Your task to perform on an android device: star an email in the gmail app Image 0: 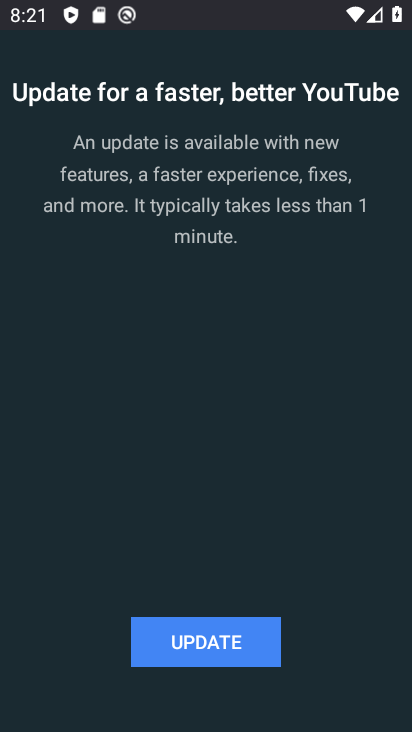
Step 0: press home button
Your task to perform on an android device: star an email in the gmail app Image 1: 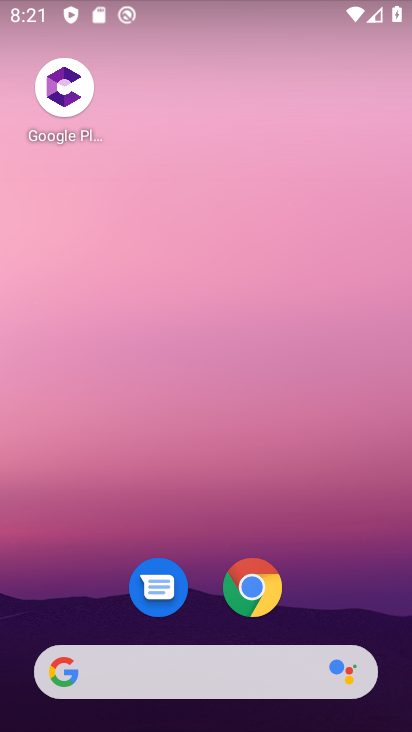
Step 1: drag from (113, 731) to (140, 50)
Your task to perform on an android device: star an email in the gmail app Image 2: 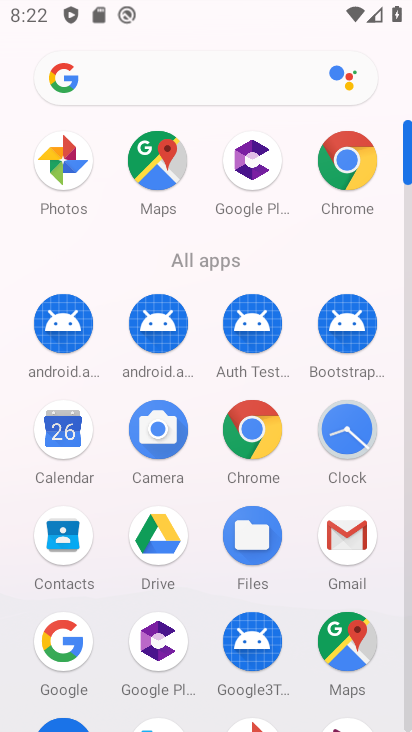
Step 2: click (348, 540)
Your task to perform on an android device: star an email in the gmail app Image 3: 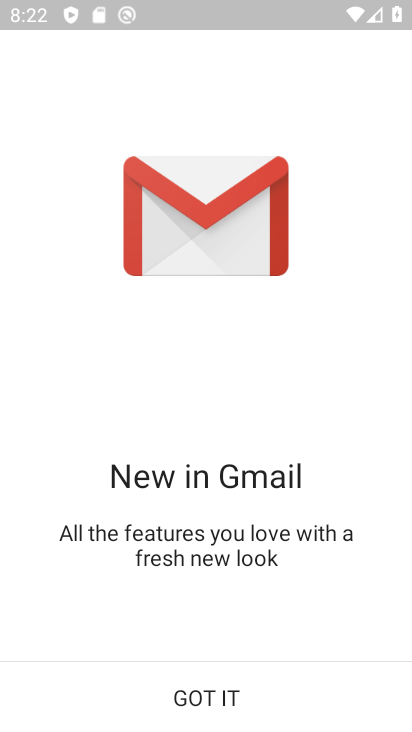
Step 3: click (235, 678)
Your task to perform on an android device: star an email in the gmail app Image 4: 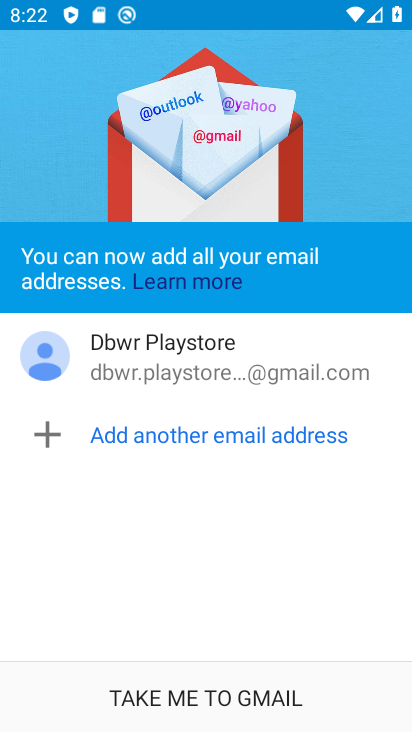
Step 4: click (199, 354)
Your task to perform on an android device: star an email in the gmail app Image 5: 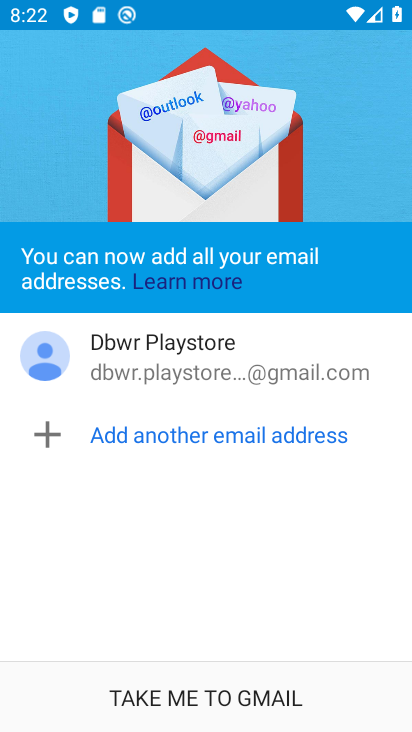
Step 5: click (215, 696)
Your task to perform on an android device: star an email in the gmail app Image 6: 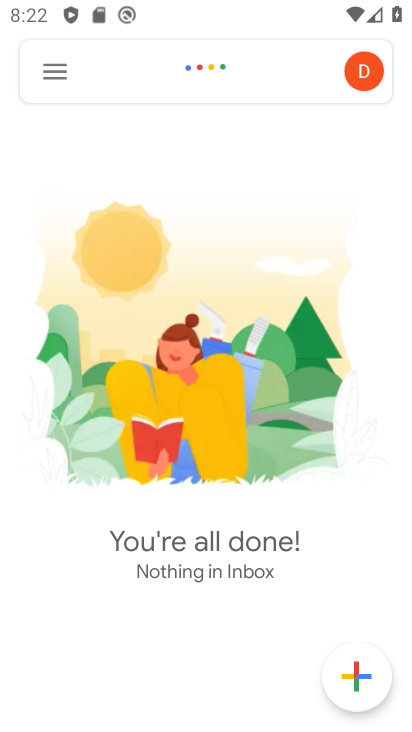
Step 6: click (50, 65)
Your task to perform on an android device: star an email in the gmail app Image 7: 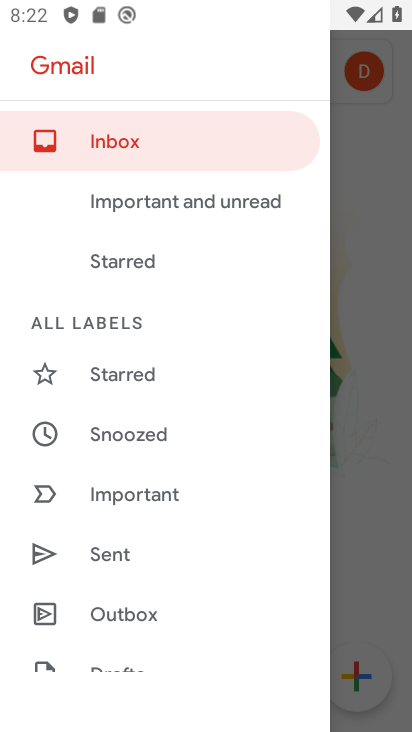
Step 7: drag from (207, 597) to (232, 242)
Your task to perform on an android device: star an email in the gmail app Image 8: 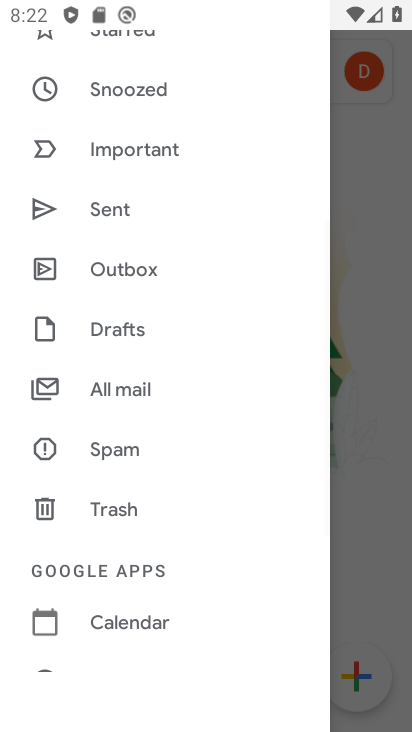
Step 8: click (150, 396)
Your task to perform on an android device: star an email in the gmail app Image 9: 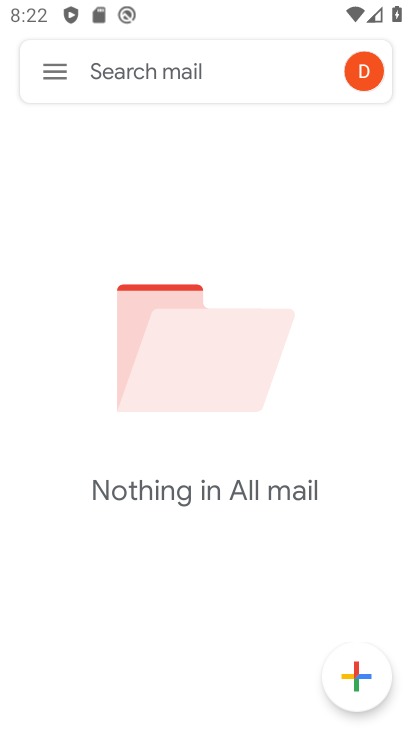
Step 9: click (61, 77)
Your task to perform on an android device: star an email in the gmail app Image 10: 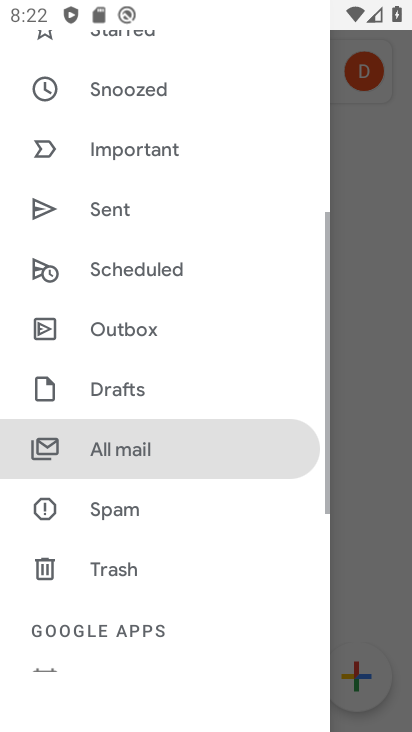
Step 10: drag from (171, 111) to (190, 546)
Your task to perform on an android device: star an email in the gmail app Image 11: 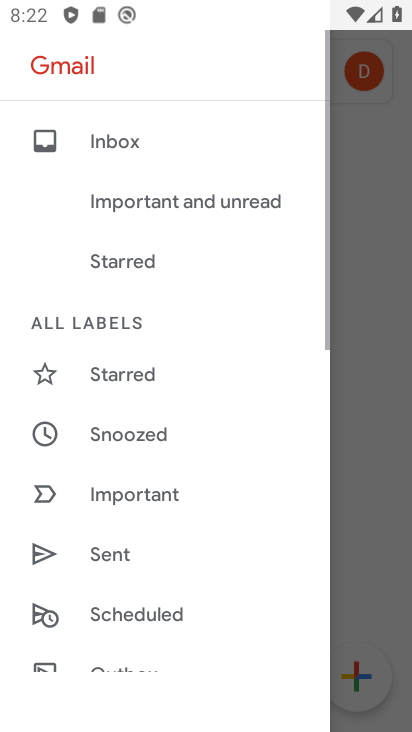
Step 11: click (103, 155)
Your task to perform on an android device: star an email in the gmail app Image 12: 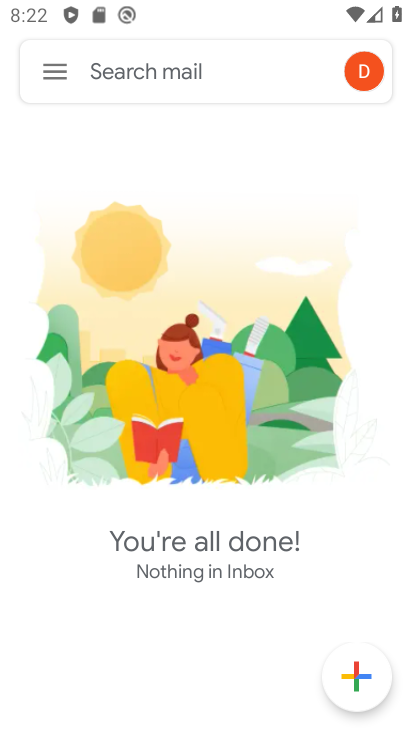
Step 12: task complete